Your task to perform on an android device: open a new tab in the chrome app Image 0: 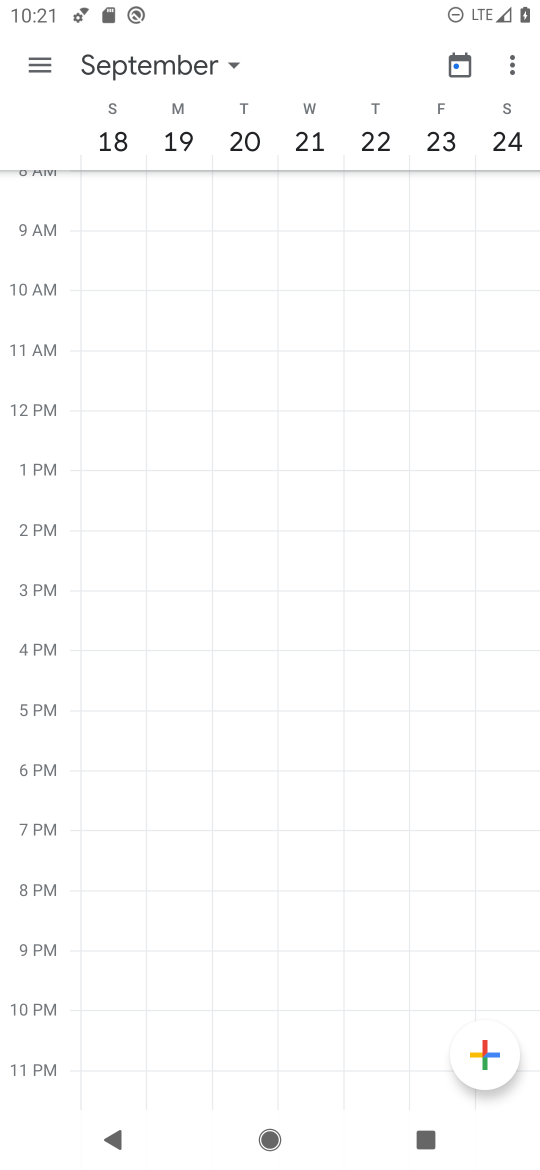
Step 0: press home button
Your task to perform on an android device: open a new tab in the chrome app Image 1: 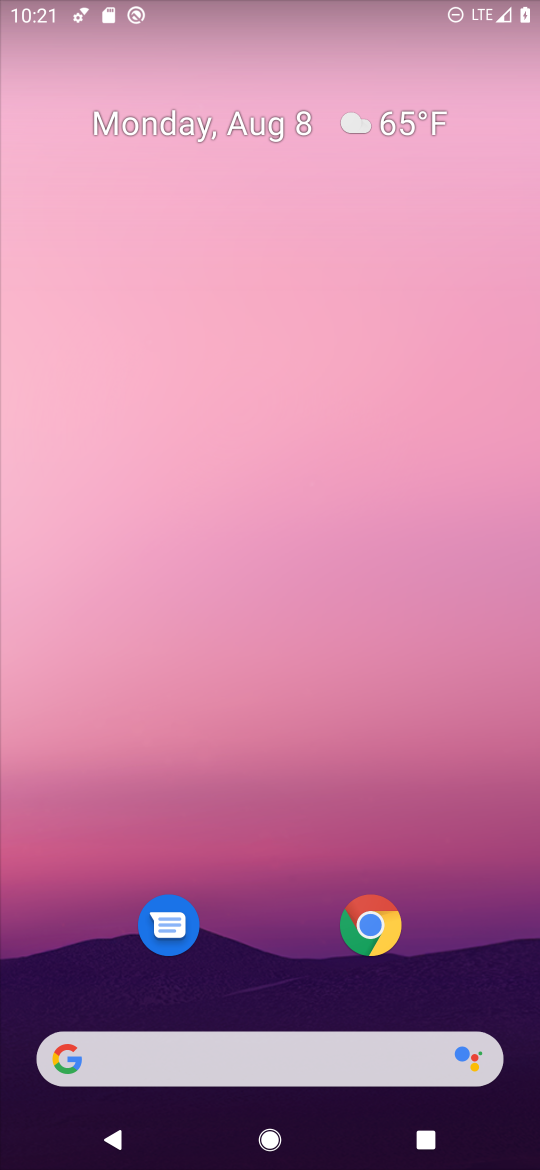
Step 1: drag from (261, 913) to (316, 121)
Your task to perform on an android device: open a new tab in the chrome app Image 2: 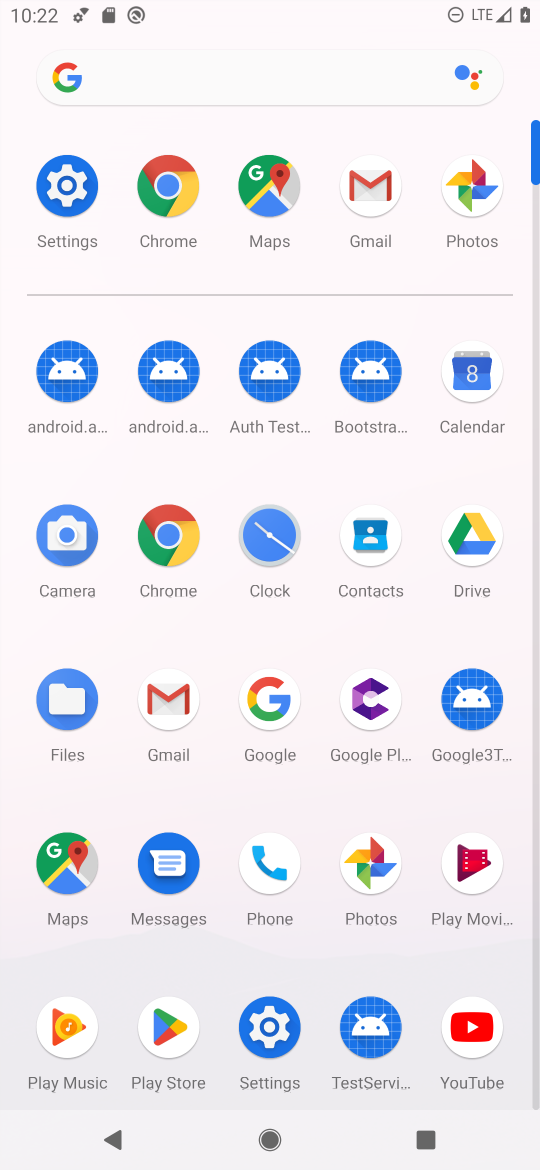
Step 2: click (169, 540)
Your task to perform on an android device: open a new tab in the chrome app Image 3: 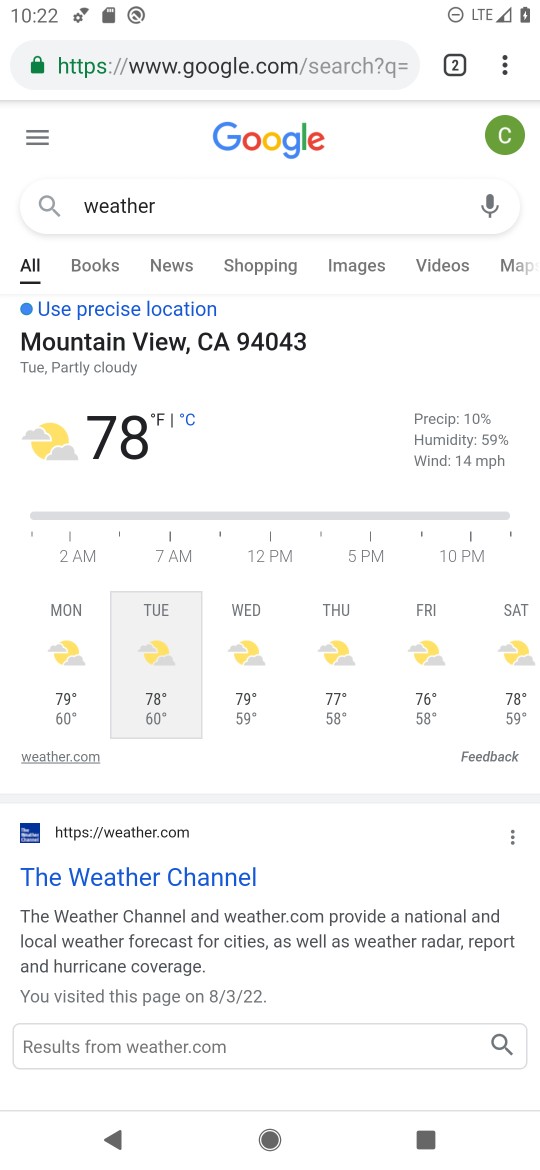
Step 3: task complete